Your task to perform on an android device: Open sound settings Image 0: 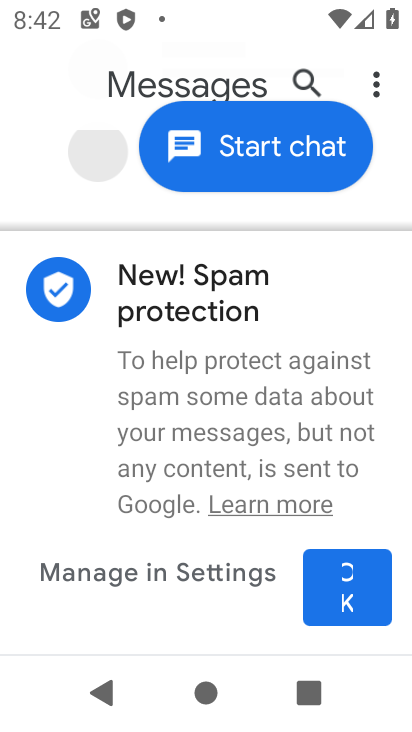
Step 0: press home button
Your task to perform on an android device: Open sound settings Image 1: 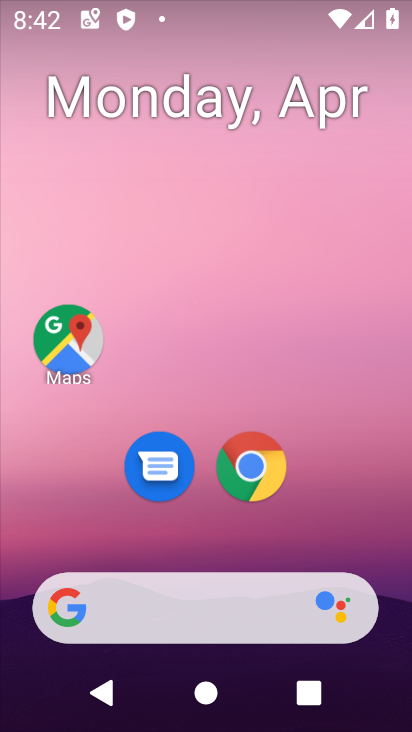
Step 1: drag from (192, 535) to (248, 143)
Your task to perform on an android device: Open sound settings Image 2: 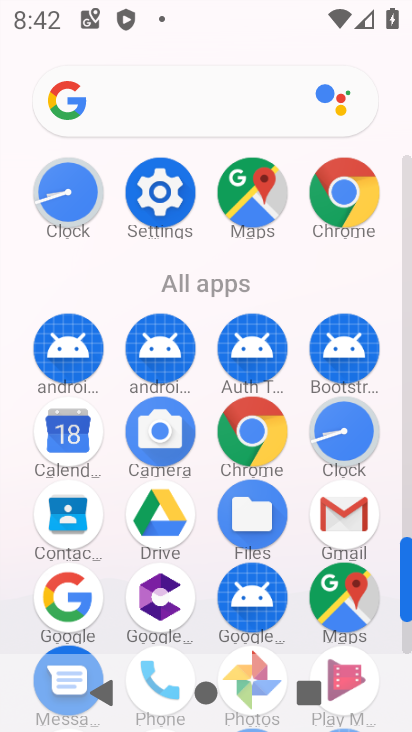
Step 2: click (161, 187)
Your task to perform on an android device: Open sound settings Image 3: 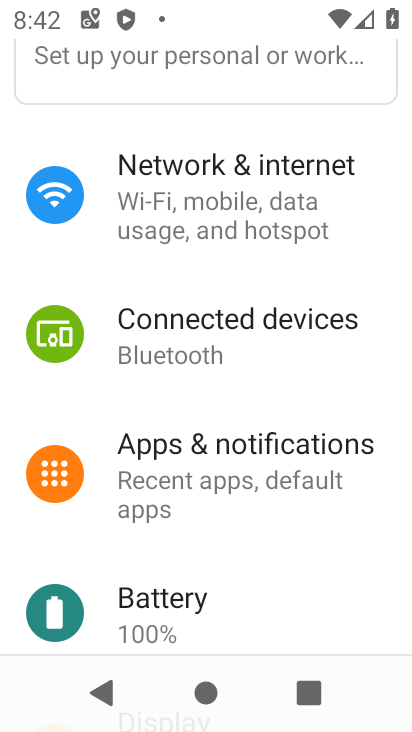
Step 3: drag from (202, 401) to (208, 322)
Your task to perform on an android device: Open sound settings Image 4: 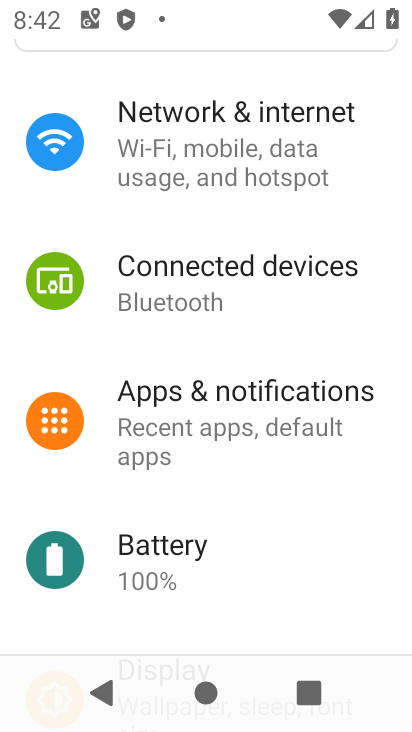
Step 4: drag from (201, 475) to (231, 374)
Your task to perform on an android device: Open sound settings Image 5: 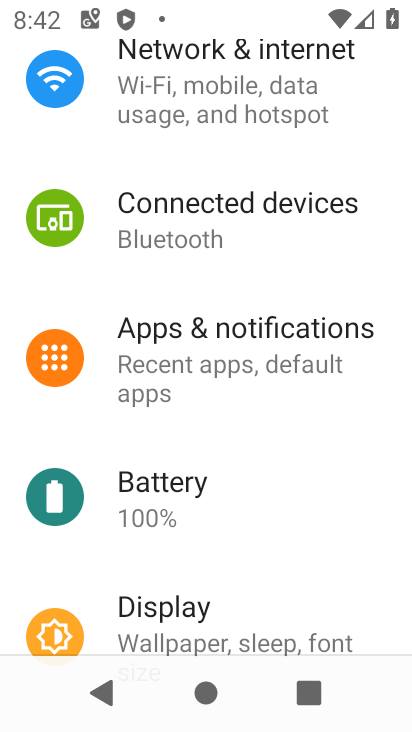
Step 5: drag from (217, 554) to (244, 440)
Your task to perform on an android device: Open sound settings Image 6: 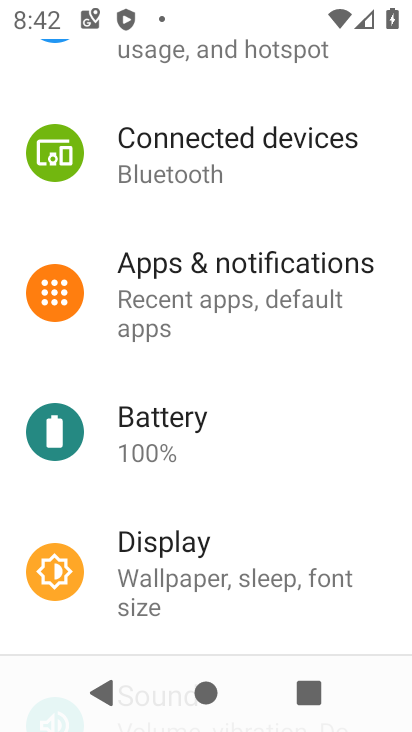
Step 6: drag from (220, 505) to (248, 422)
Your task to perform on an android device: Open sound settings Image 7: 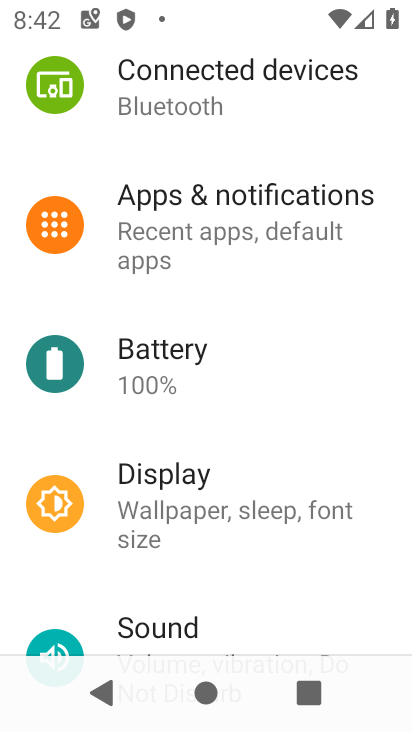
Step 7: drag from (200, 577) to (250, 436)
Your task to perform on an android device: Open sound settings Image 8: 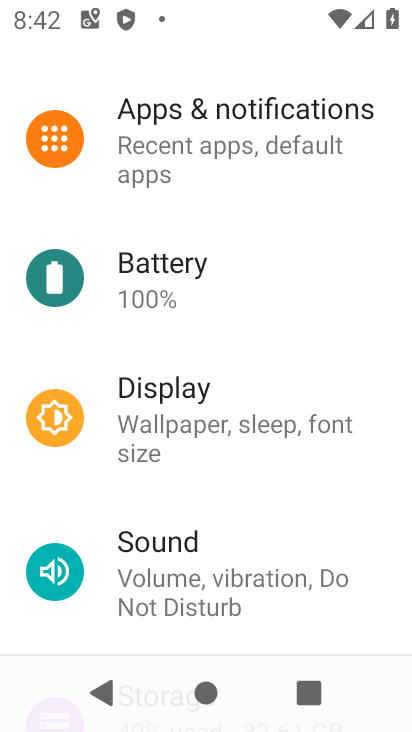
Step 8: click (185, 541)
Your task to perform on an android device: Open sound settings Image 9: 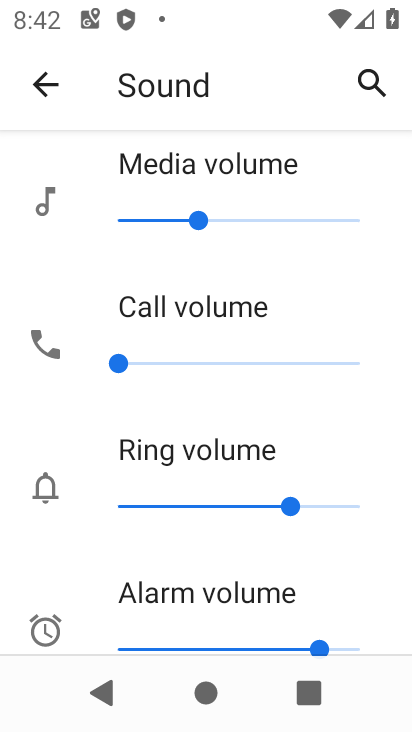
Step 9: task complete